Your task to perform on an android device: open app "Messages" (install if not already installed) and enter user name: "Hersey@inbox.com" and password: "facings" Image 0: 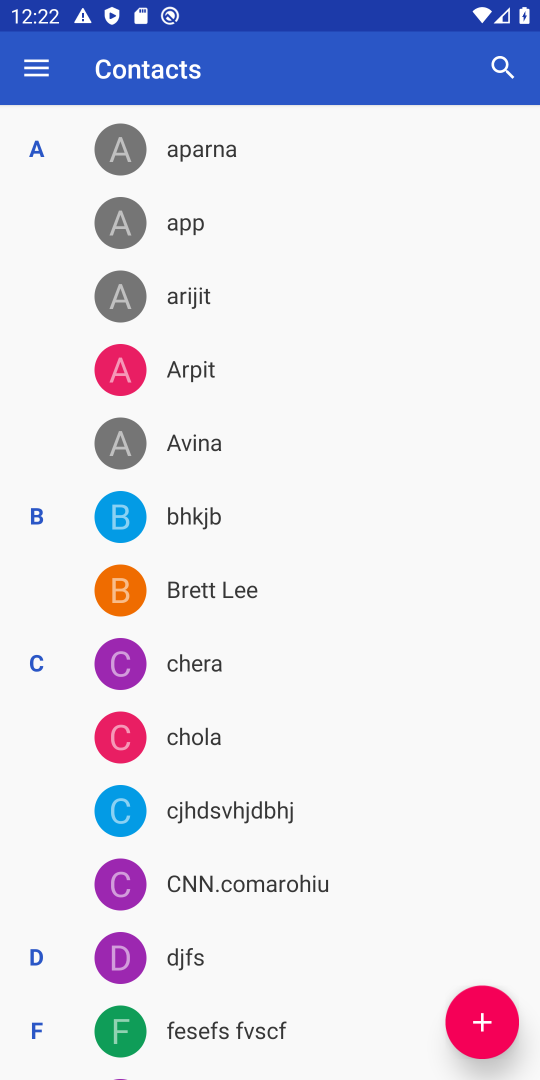
Step 0: press home button
Your task to perform on an android device: open app "Messages" (install if not already installed) and enter user name: "Hersey@inbox.com" and password: "facings" Image 1: 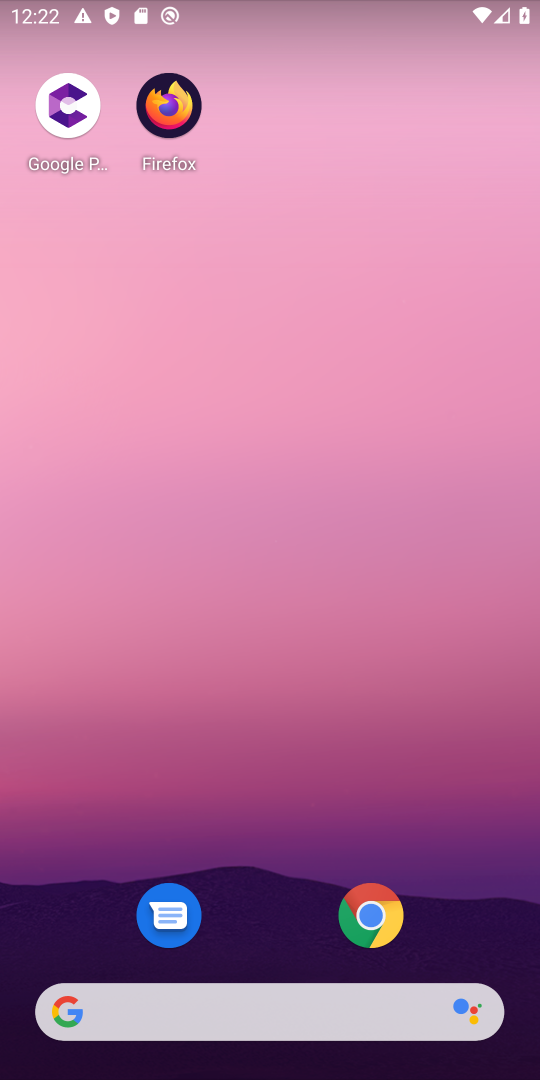
Step 1: click (162, 919)
Your task to perform on an android device: open app "Messages" (install if not already installed) and enter user name: "Hersey@inbox.com" and password: "facings" Image 2: 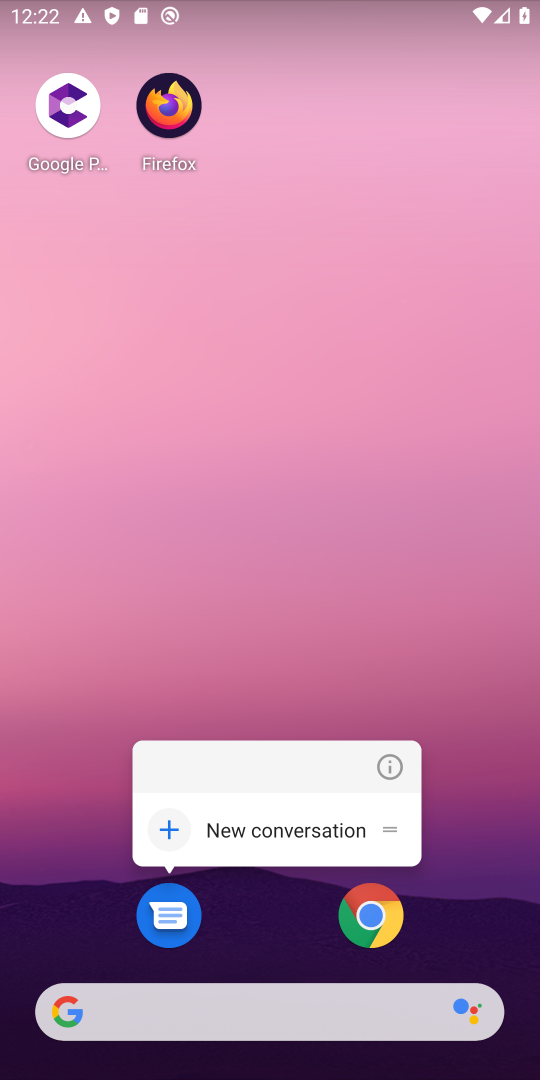
Step 2: click (173, 942)
Your task to perform on an android device: open app "Messages" (install if not already installed) and enter user name: "Hersey@inbox.com" and password: "facings" Image 3: 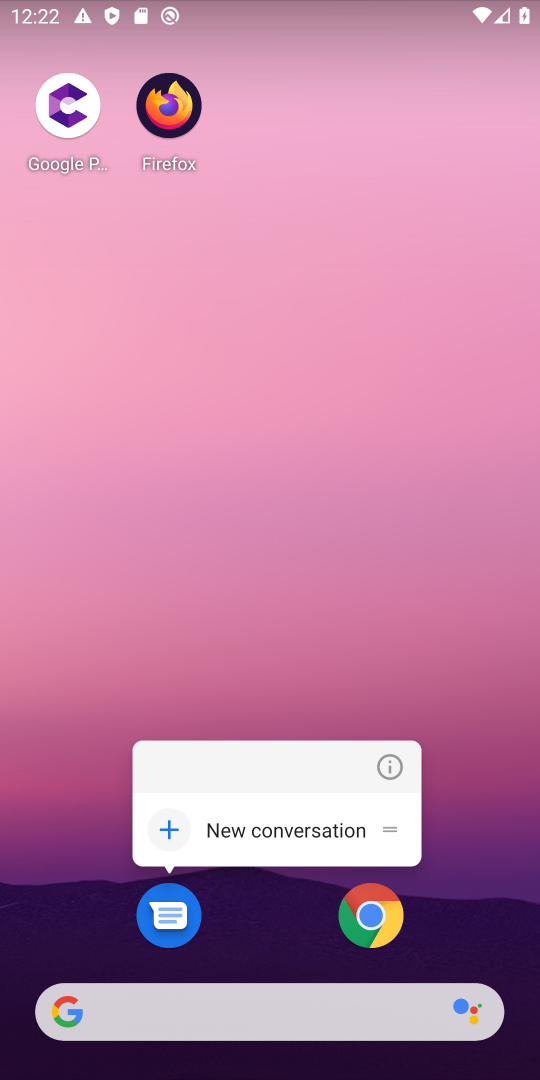
Step 3: click (172, 895)
Your task to perform on an android device: open app "Messages" (install if not already installed) and enter user name: "Hersey@inbox.com" and password: "facings" Image 4: 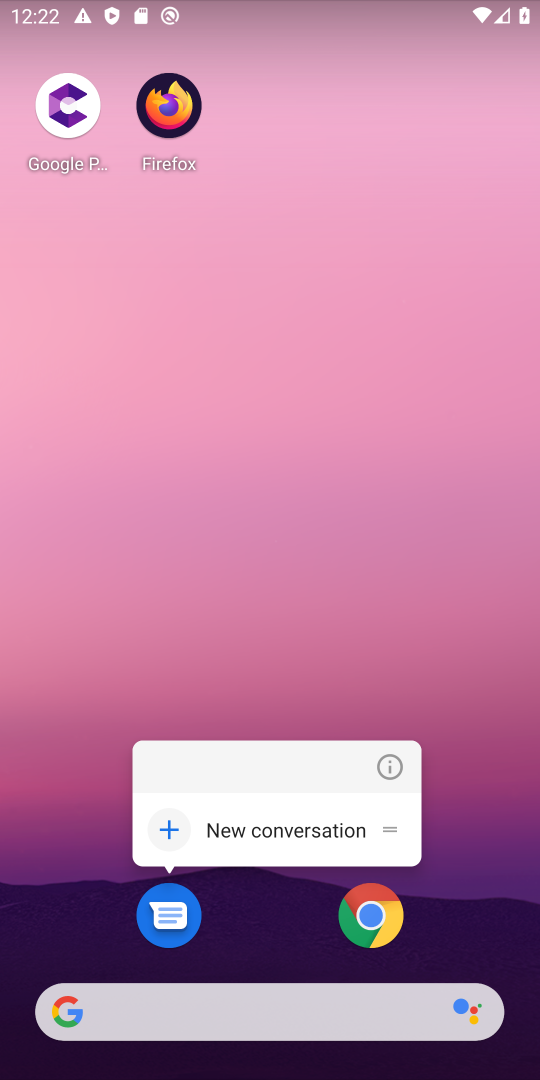
Step 4: click (178, 930)
Your task to perform on an android device: open app "Messages" (install if not already installed) and enter user name: "Hersey@inbox.com" and password: "facings" Image 5: 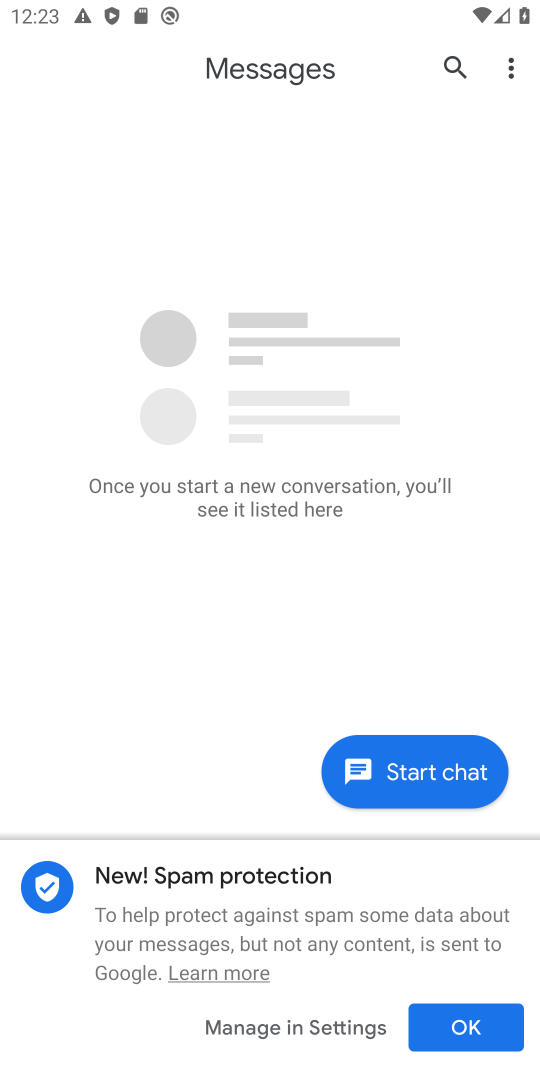
Step 5: task complete